Your task to perform on an android device: Go to network settings Image 0: 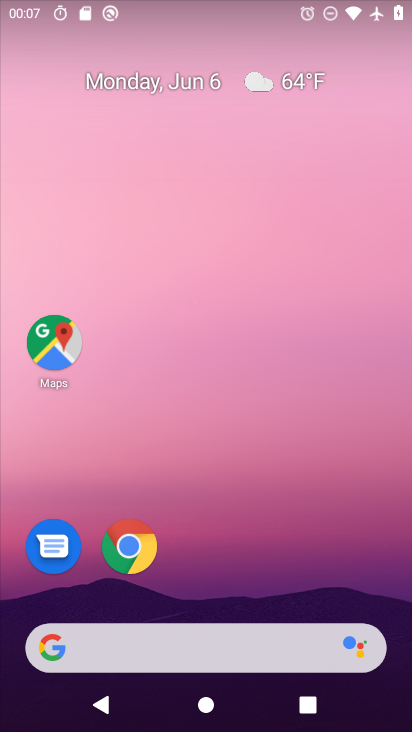
Step 0: drag from (191, 575) to (244, 187)
Your task to perform on an android device: Go to network settings Image 1: 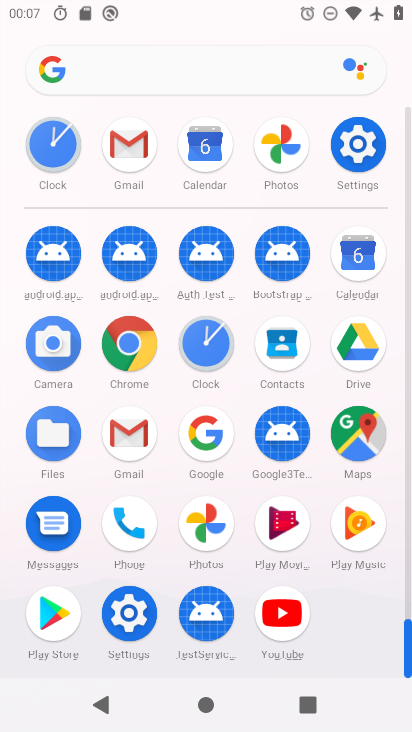
Step 1: click (356, 136)
Your task to perform on an android device: Go to network settings Image 2: 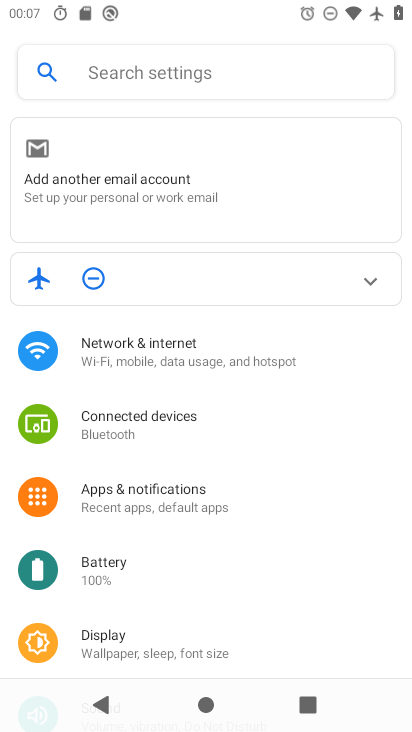
Step 2: drag from (210, 589) to (266, 288)
Your task to perform on an android device: Go to network settings Image 3: 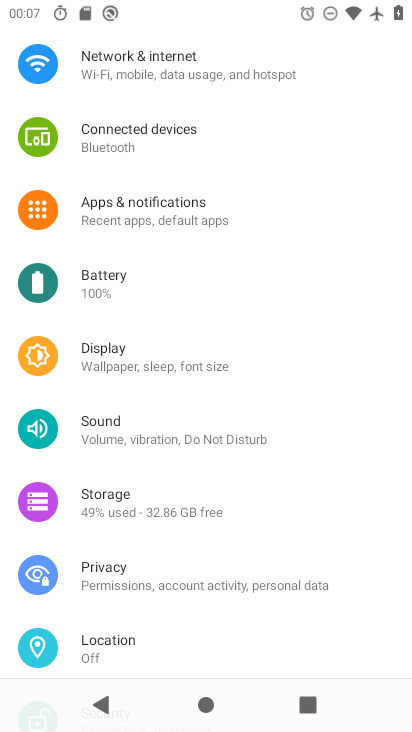
Step 3: click (186, 46)
Your task to perform on an android device: Go to network settings Image 4: 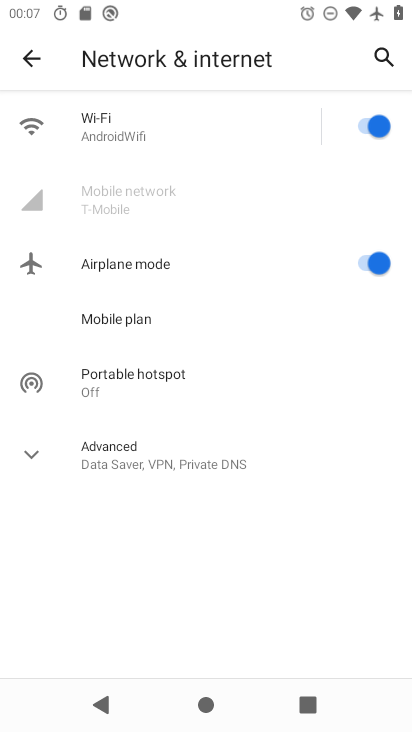
Step 4: task complete